Your task to perform on an android device: turn off priority inbox in the gmail app Image 0: 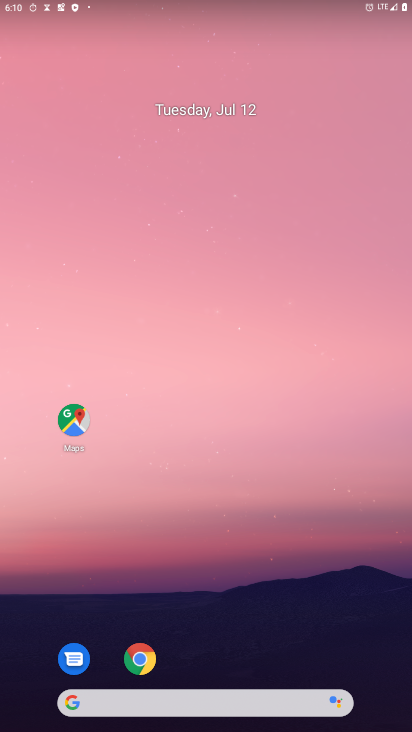
Step 0: press home button
Your task to perform on an android device: turn off priority inbox in the gmail app Image 1: 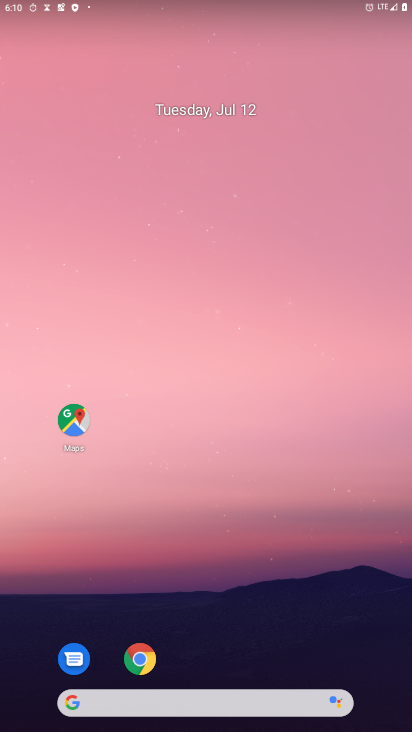
Step 1: drag from (213, 649) to (191, 260)
Your task to perform on an android device: turn off priority inbox in the gmail app Image 2: 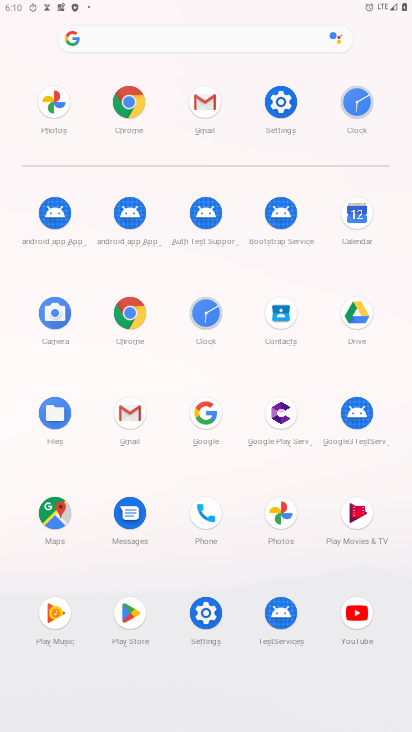
Step 2: click (209, 101)
Your task to perform on an android device: turn off priority inbox in the gmail app Image 3: 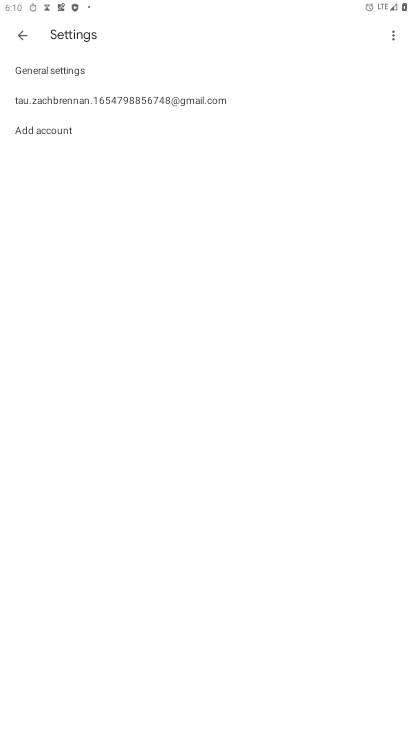
Step 3: click (173, 96)
Your task to perform on an android device: turn off priority inbox in the gmail app Image 4: 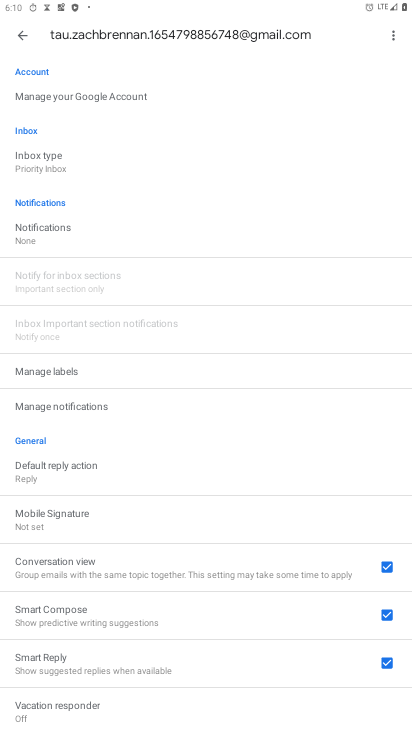
Step 4: click (50, 174)
Your task to perform on an android device: turn off priority inbox in the gmail app Image 5: 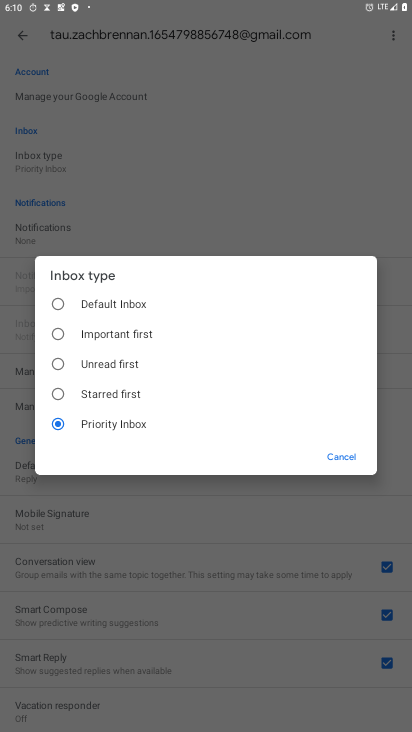
Step 5: click (56, 312)
Your task to perform on an android device: turn off priority inbox in the gmail app Image 6: 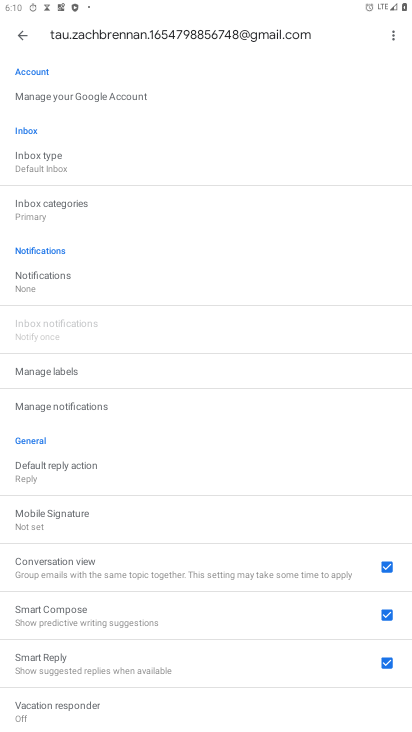
Step 6: task complete